Your task to perform on an android device: Search for sushi restaurants on Maps Image 0: 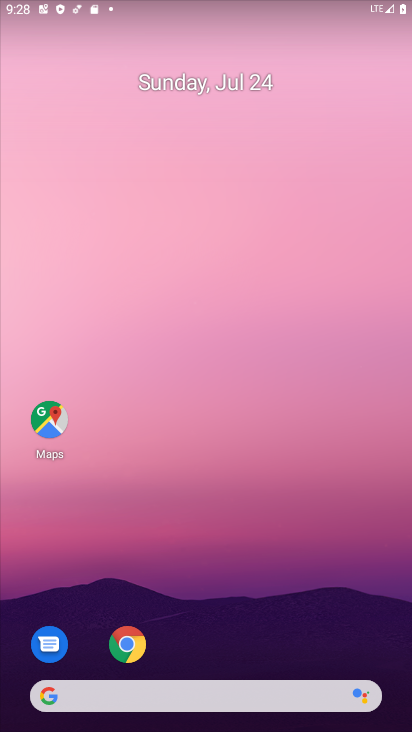
Step 0: click (11, 437)
Your task to perform on an android device: Search for sushi restaurants on Maps Image 1: 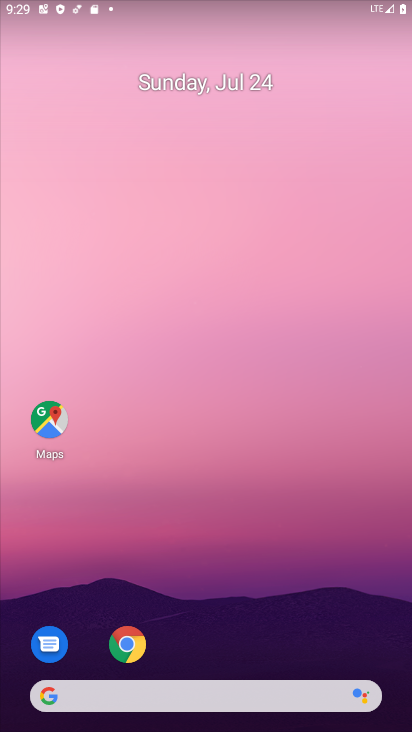
Step 1: click (66, 401)
Your task to perform on an android device: Search for sushi restaurants on Maps Image 2: 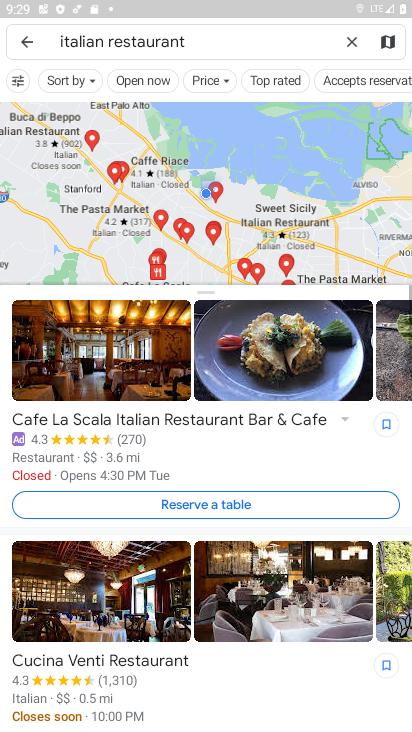
Step 2: click (353, 42)
Your task to perform on an android device: Search for sushi restaurants on Maps Image 3: 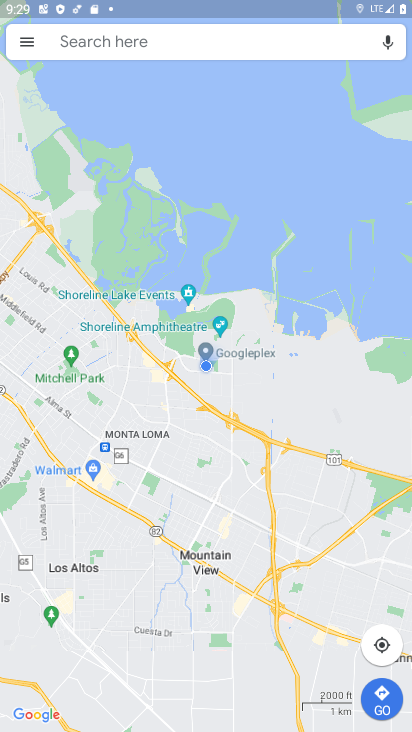
Step 3: click (151, 35)
Your task to perform on an android device: Search for sushi restaurants on Maps Image 4: 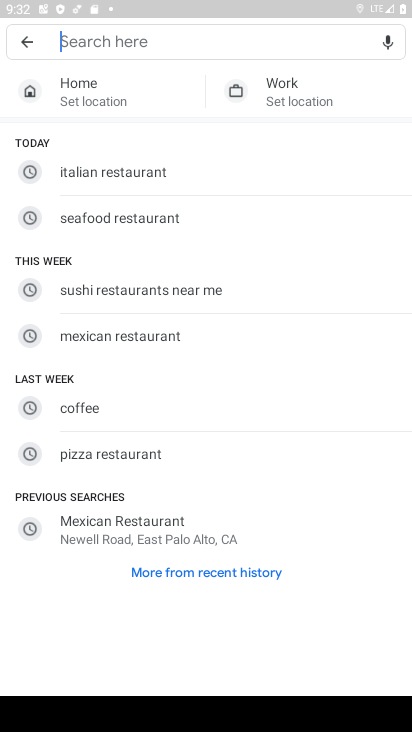
Step 4: type " sushi restaurants"
Your task to perform on an android device: Search for sushi restaurants on Maps Image 5: 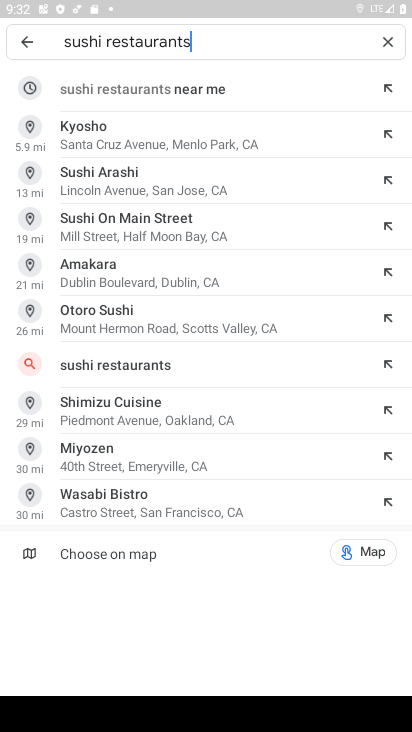
Step 5: click (239, 91)
Your task to perform on an android device: Search for sushi restaurants on Maps Image 6: 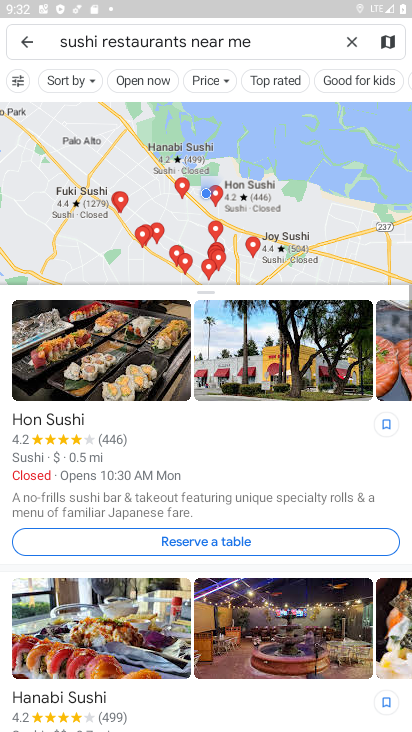
Step 6: task complete